Your task to perform on an android device: Go to Amazon Image 0: 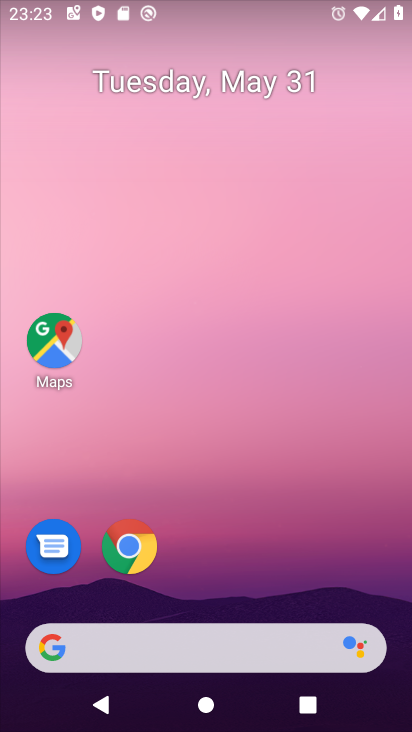
Step 0: click (134, 553)
Your task to perform on an android device: Go to Amazon Image 1: 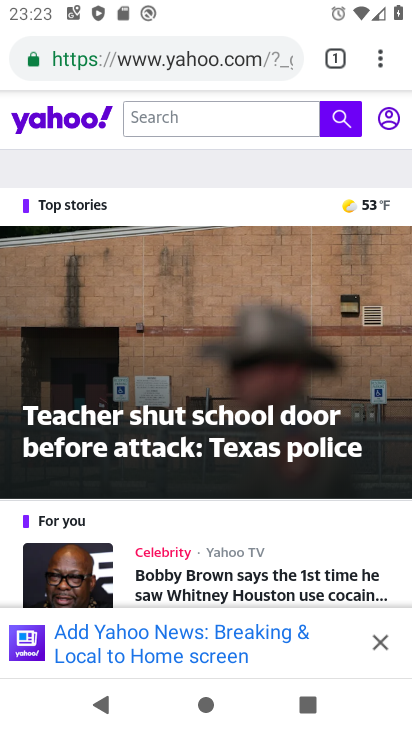
Step 1: click (375, 66)
Your task to perform on an android device: Go to Amazon Image 2: 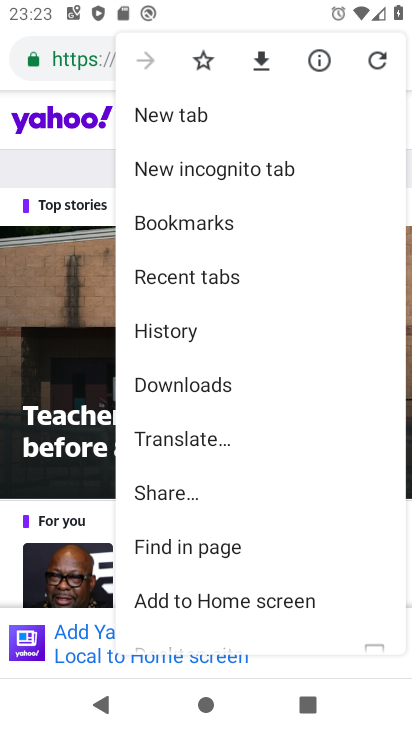
Step 2: click (275, 109)
Your task to perform on an android device: Go to Amazon Image 3: 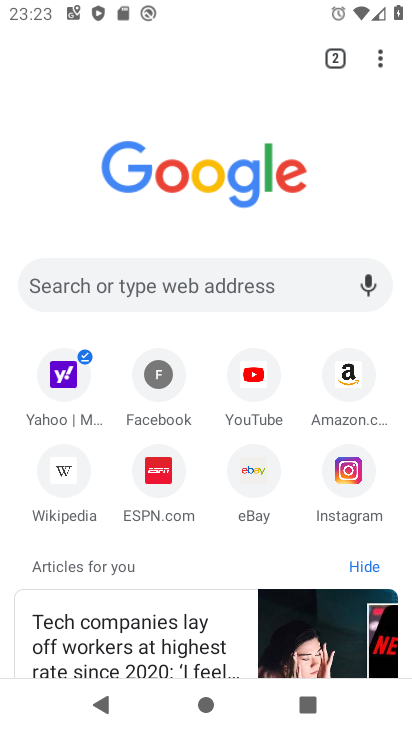
Step 3: click (348, 363)
Your task to perform on an android device: Go to Amazon Image 4: 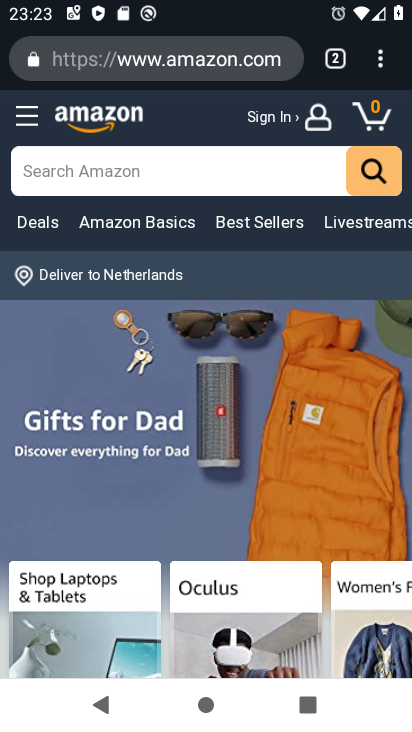
Step 4: task complete